Your task to perform on an android device: Go to privacy settings Image 0: 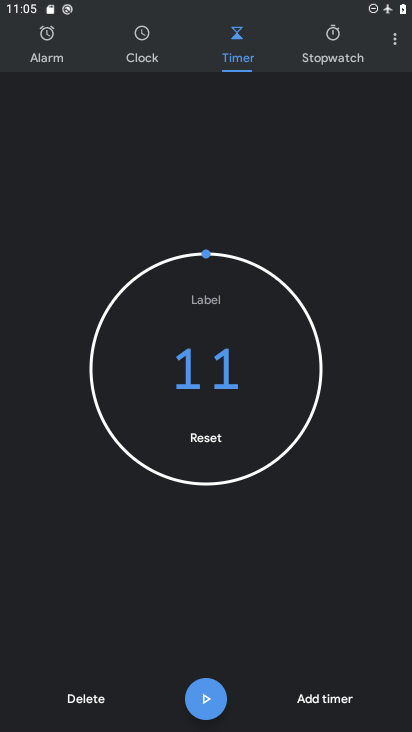
Step 0: press home button
Your task to perform on an android device: Go to privacy settings Image 1: 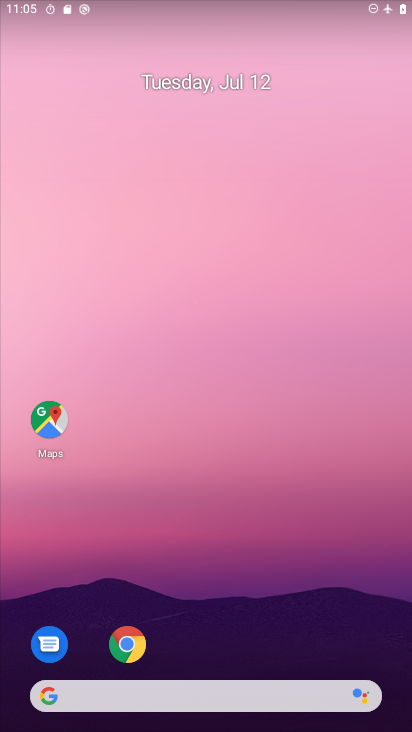
Step 1: drag from (181, 611) to (219, 203)
Your task to perform on an android device: Go to privacy settings Image 2: 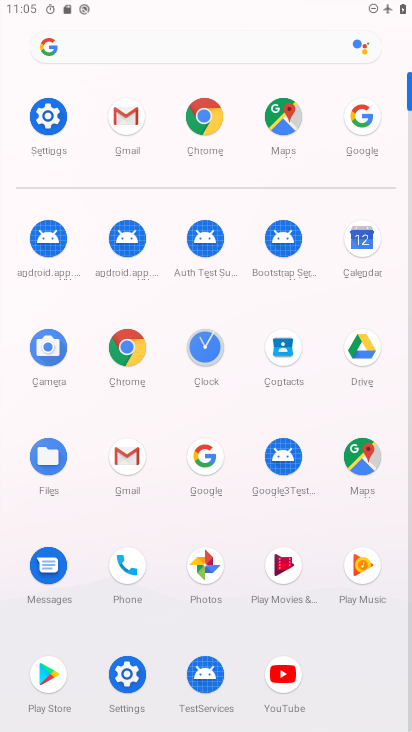
Step 2: click (60, 104)
Your task to perform on an android device: Go to privacy settings Image 3: 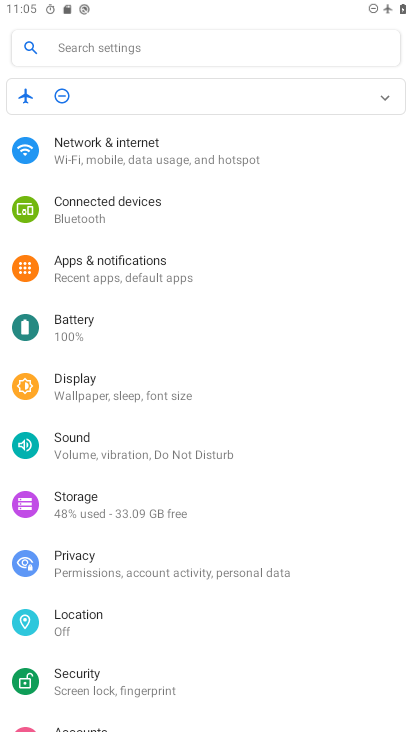
Step 3: click (114, 560)
Your task to perform on an android device: Go to privacy settings Image 4: 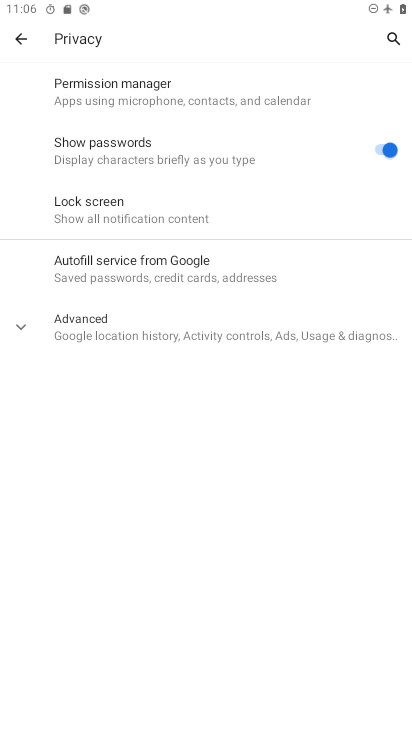
Step 4: task complete